Your task to perform on an android device: Open the web browser Image 0: 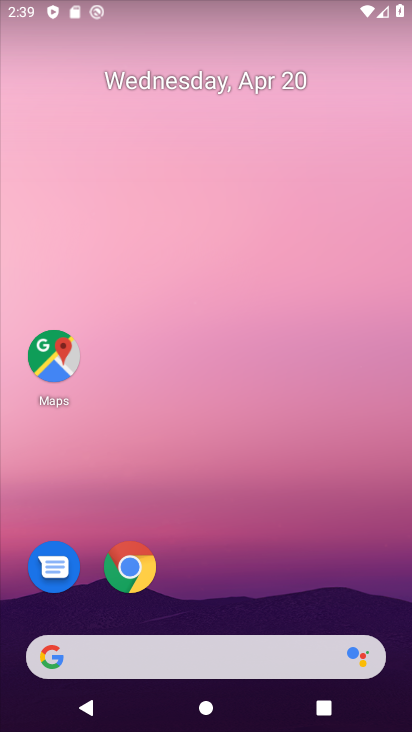
Step 0: click (143, 571)
Your task to perform on an android device: Open the web browser Image 1: 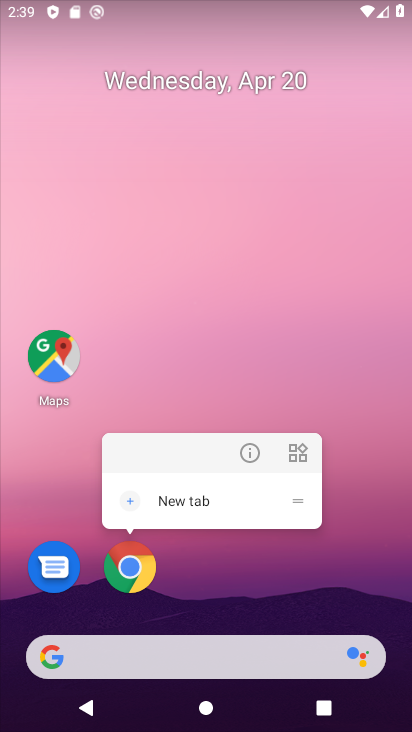
Step 1: click (143, 571)
Your task to perform on an android device: Open the web browser Image 2: 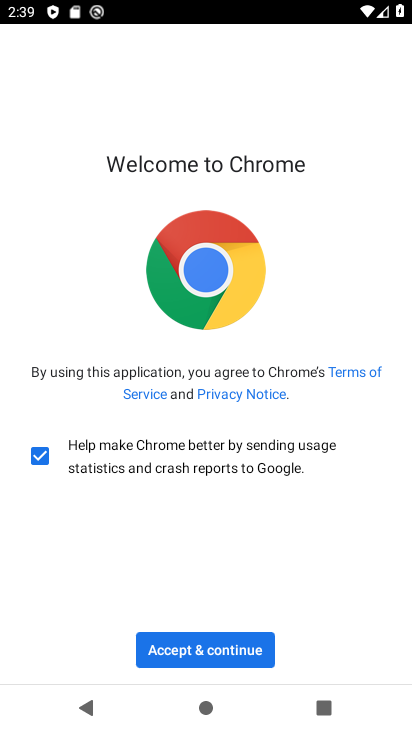
Step 2: click (193, 638)
Your task to perform on an android device: Open the web browser Image 3: 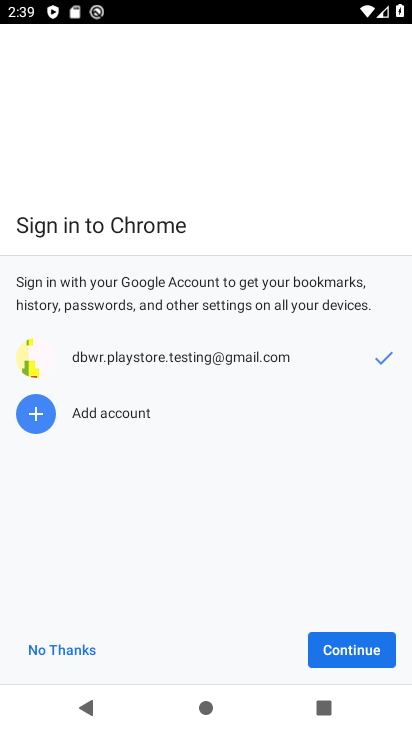
Step 3: click (325, 649)
Your task to perform on an android device: Open the web browser Image 4: 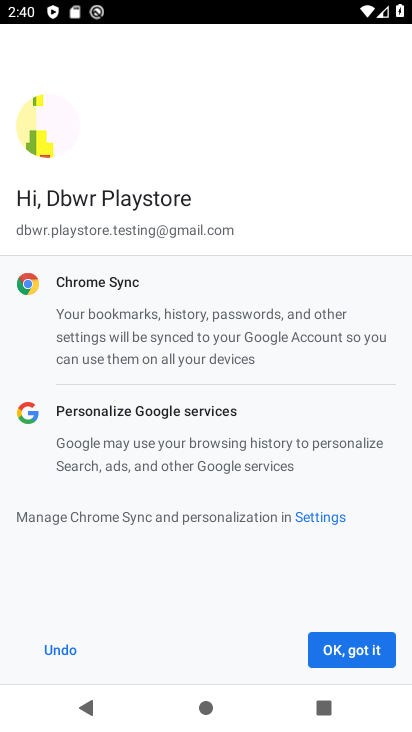
Step 4: click (327, 649)
Your task to perform on an android device: Open the web browser Image 5: 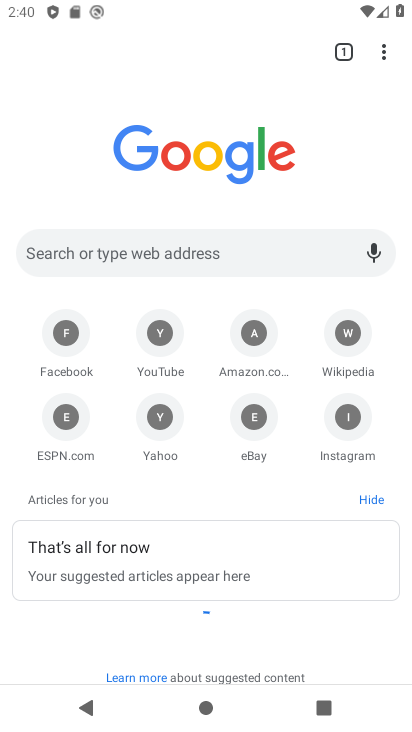
Step 5: task complete